Your task to perform on an android device: What's the top post on reddit right now? Image 0: 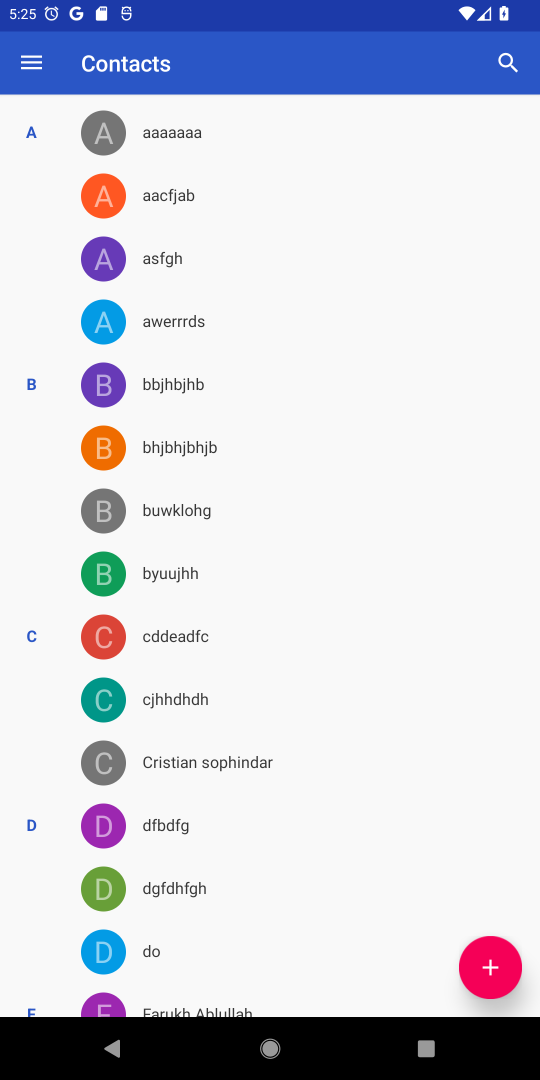
Step 0: press home button
Your task to perform on an android device: What's the top post on reddit right now? Image 1: 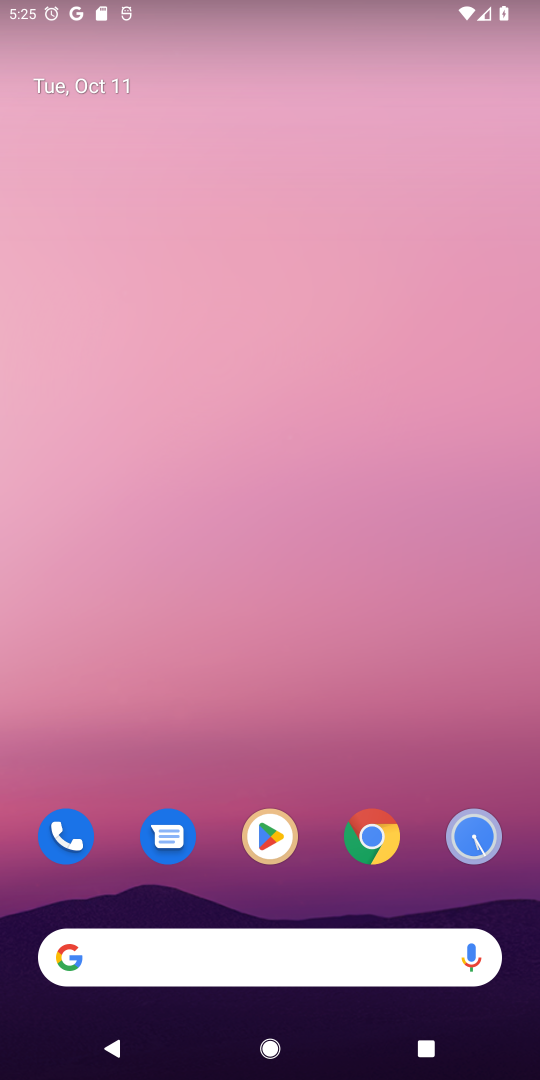
Step 1: click (249, 980)
Your task to perform on an android device: What's the top post on reddit right now? Image 2: 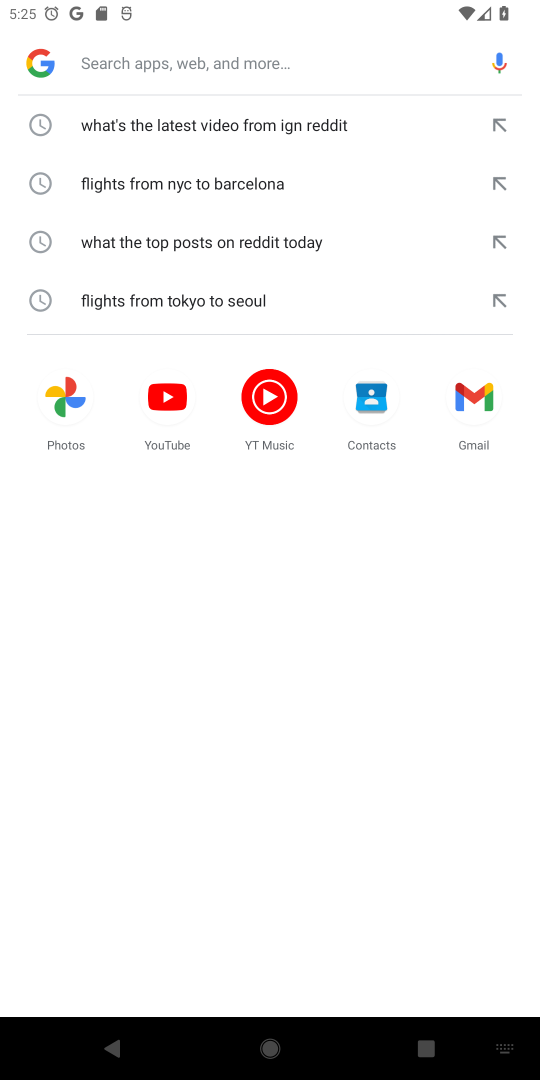
Step 2: type "What's the top post on reddit right now?"
Your task to perform on an android device: What's the top post on reddit right now? Image 3: 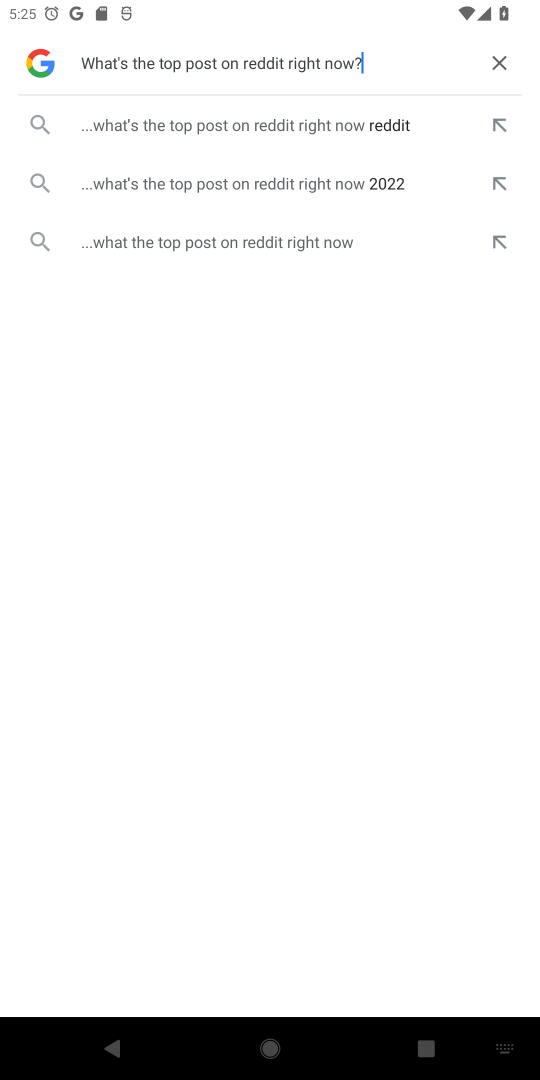
Step 3: click (267, 108)
Your task to perform on an android device: What's the top post on reddit right now? Image 4: 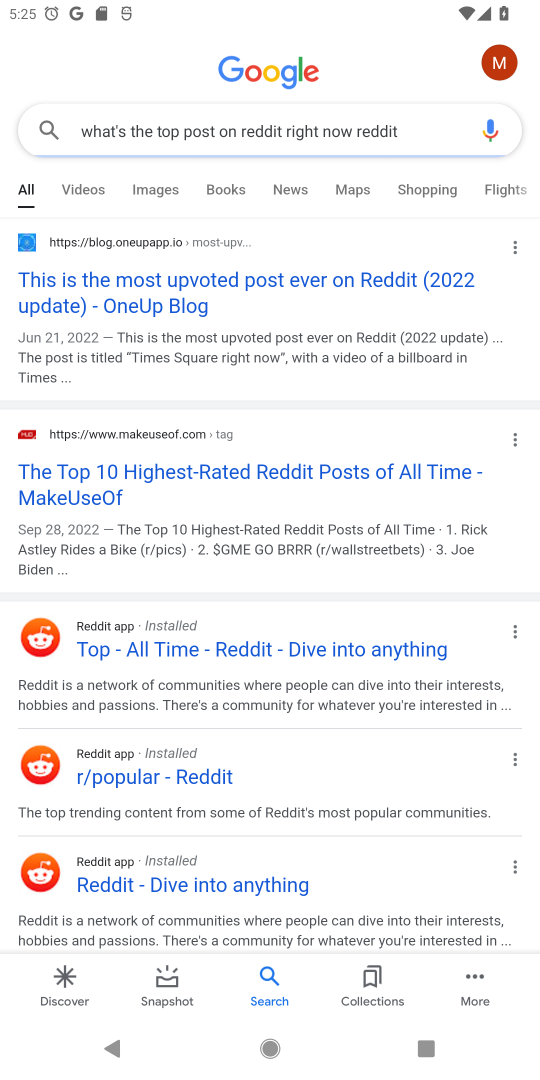
Step 4: task complete